Your task to perform on an android device: refresh tabs in the chrome app Image 0: 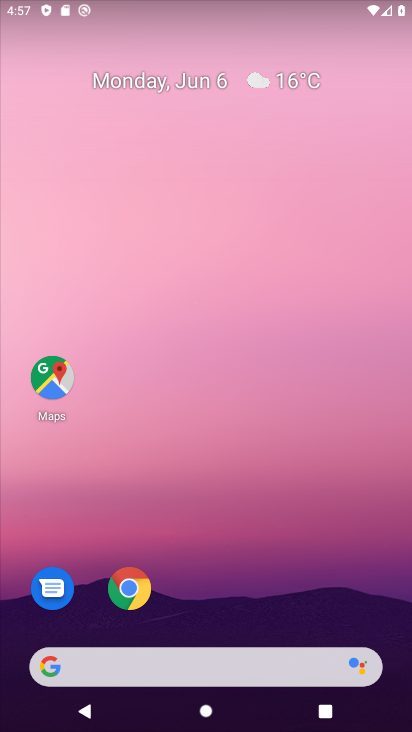
Step 0: click (135, 594)
Your task to perform on an android device: refresh tabs in the chrome app Image 1: 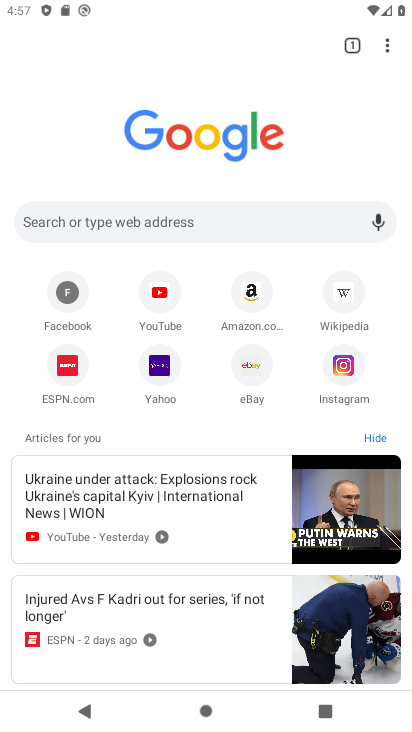
Step 1: click (396, 40)
Your task to perform on an android device: refresh tabs in the chrome app Image 2: 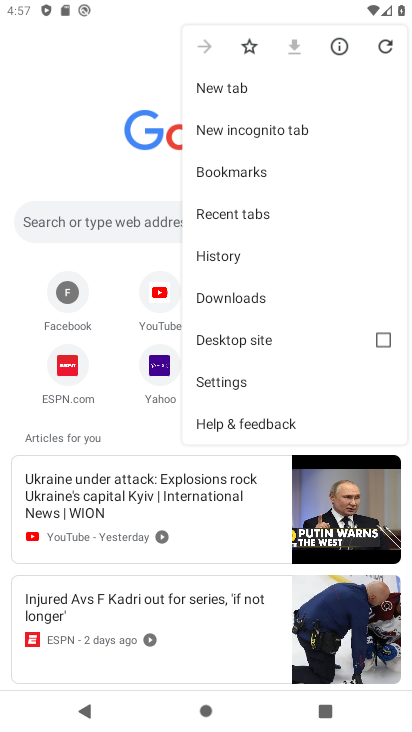
Step 2: click (387, 48)
Your task to perform on an android device: refresh tabs in the chrome app Image 3: 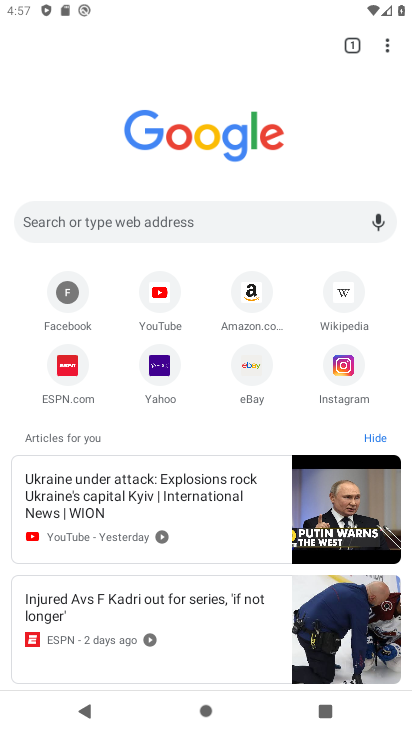
Step 3: task complete